Your task to perform on an android device: turn on sleep mode Image 0: 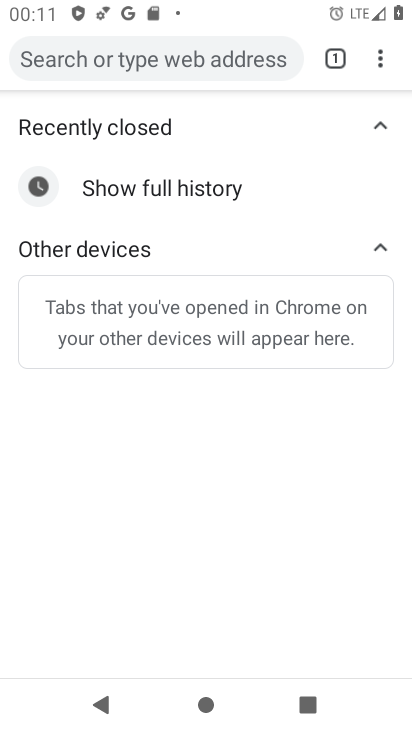
Step 0: press home button
Your task to perform on an android device: turn on sleep mode Image 1: 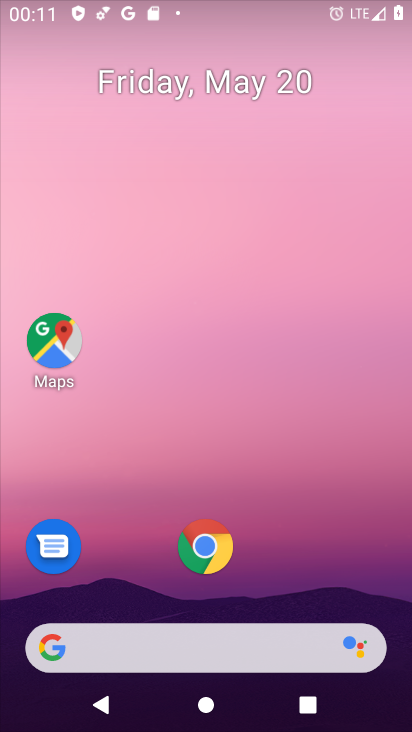
Step 1: drag from (306, 515) to (275, 101)
Your task to perform on an android device: turn on sleep mode Image 2: 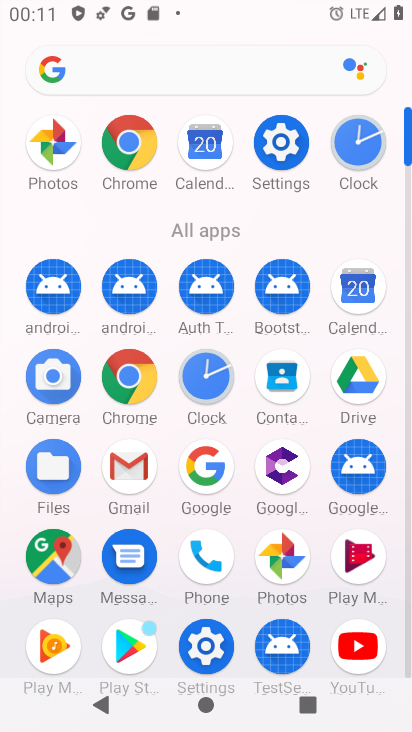
Step 2: click (301, 137)
Your task to perform on an android device: turn on sleep mode Image 3: 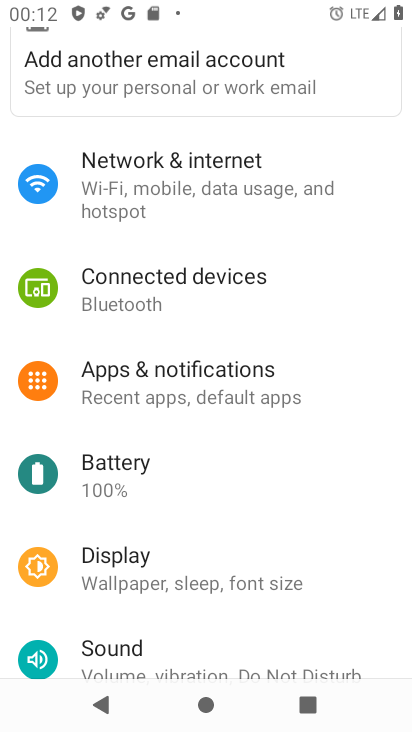
Step 3: click (188, 574)
Your task to perform on an android device: turn on sleep mode Image 4: 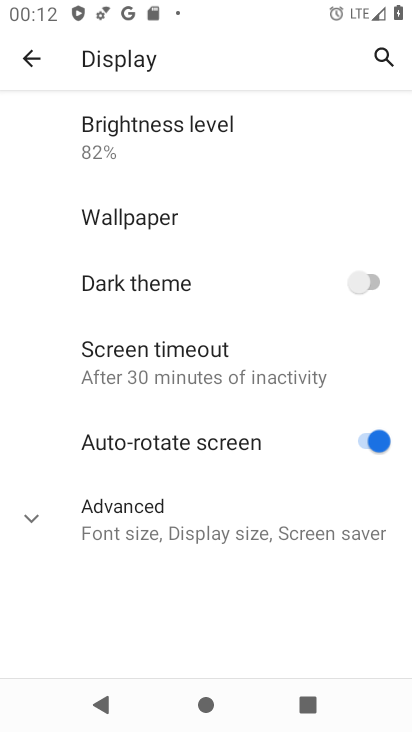
Step 4: click (211, 353)
Your task to perform on an android device: turn on sleep mode Image 5: 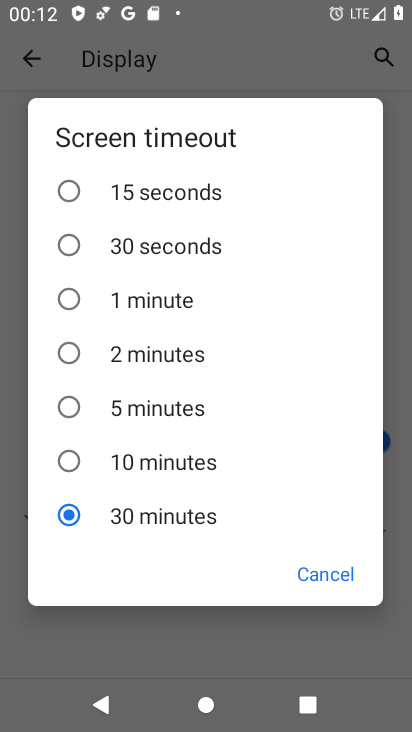
Step 5: task complete